Your task to perform on an android device: What's the weather? Image 0: 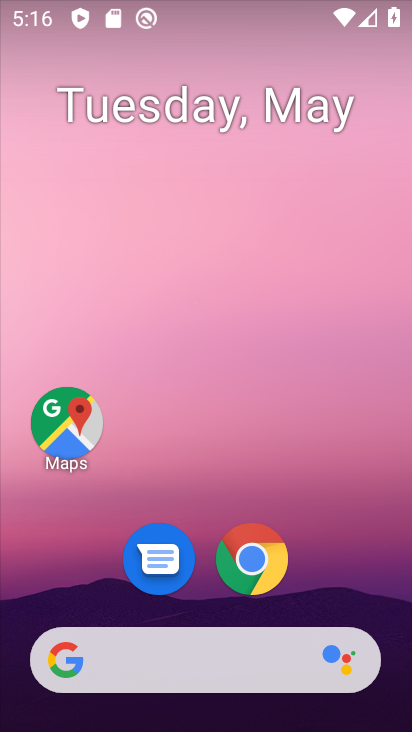
Step 0: click (115, 659)
Your task to perform on an android device: What's the weather? Image 1: 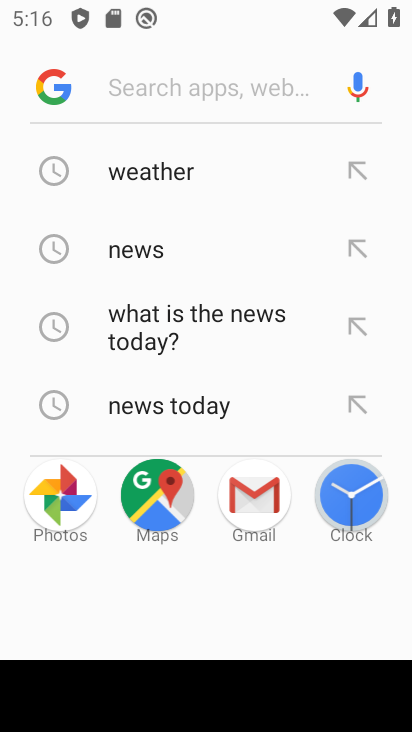
Step 1: click (167, 177)
Your task to perform on an android device: What's the weather? Image 2: 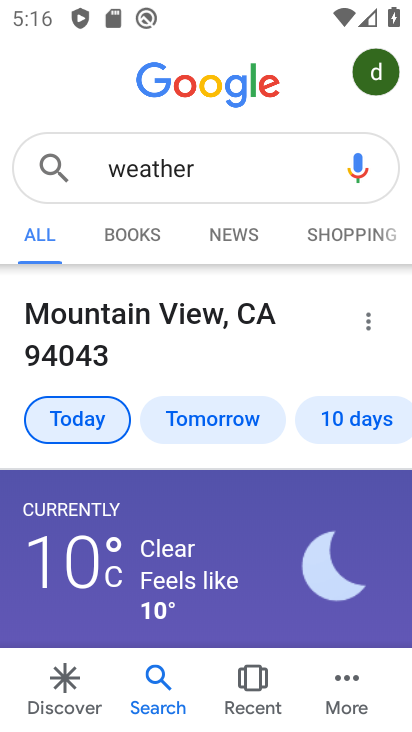
Step 2: task complete